Your task to perform on an android device: install app "Venmo" Image 0: 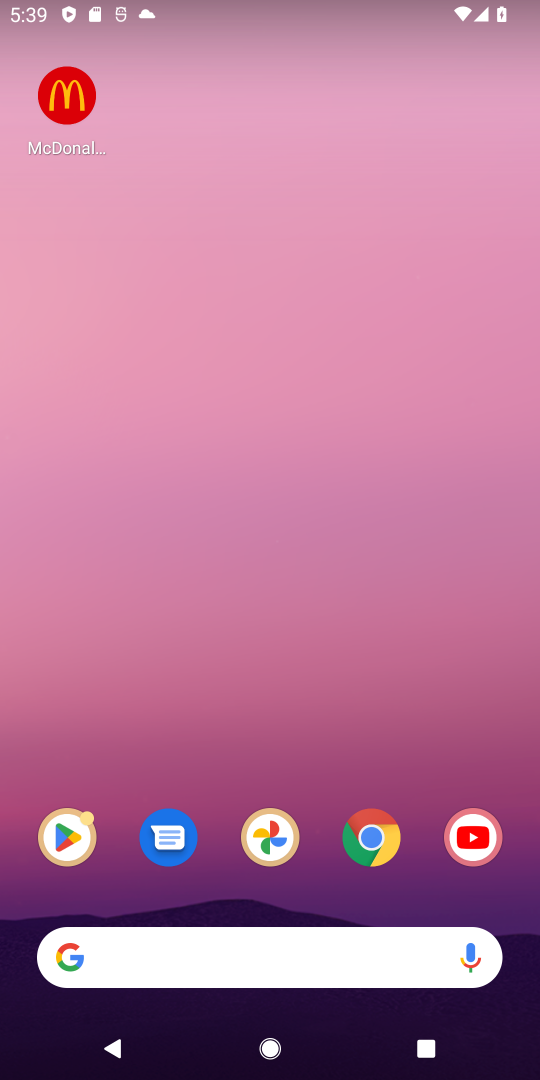
Step 0: click (61, 853)
Your task to perform on an android device: install app "Venmo" Image 1: 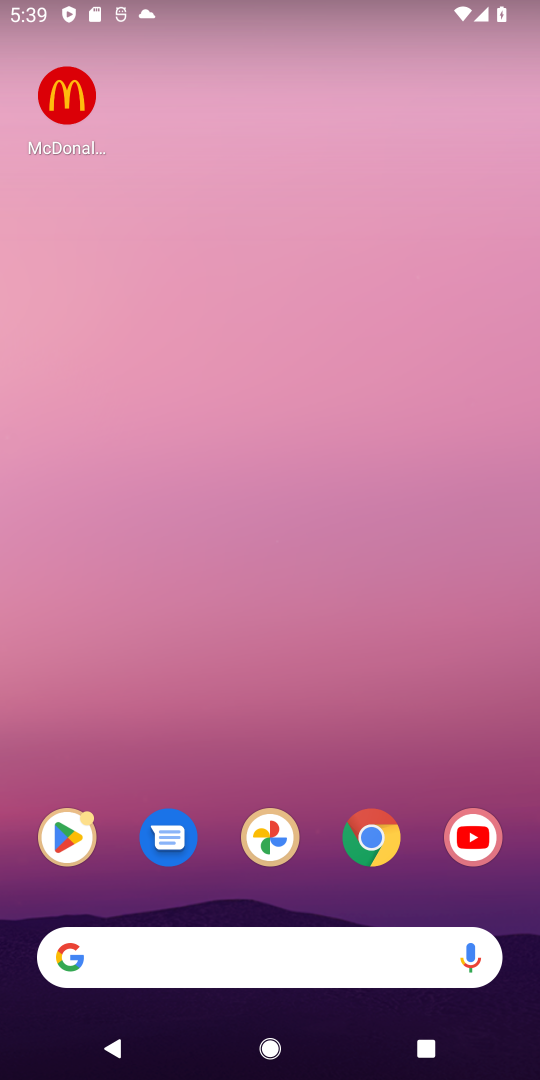
Step 1: click (61, 853)
Your task to perform on an android device: install app "Venmo" Image 2: 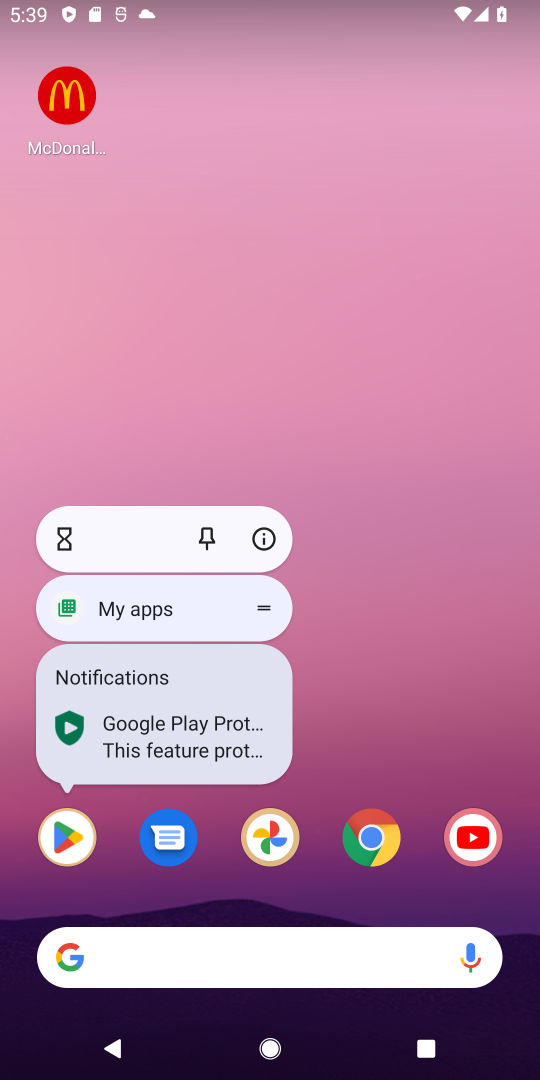
Step 2: click (61, 853)
Your task to perform on an android device: install app "Venmo" Image 3: 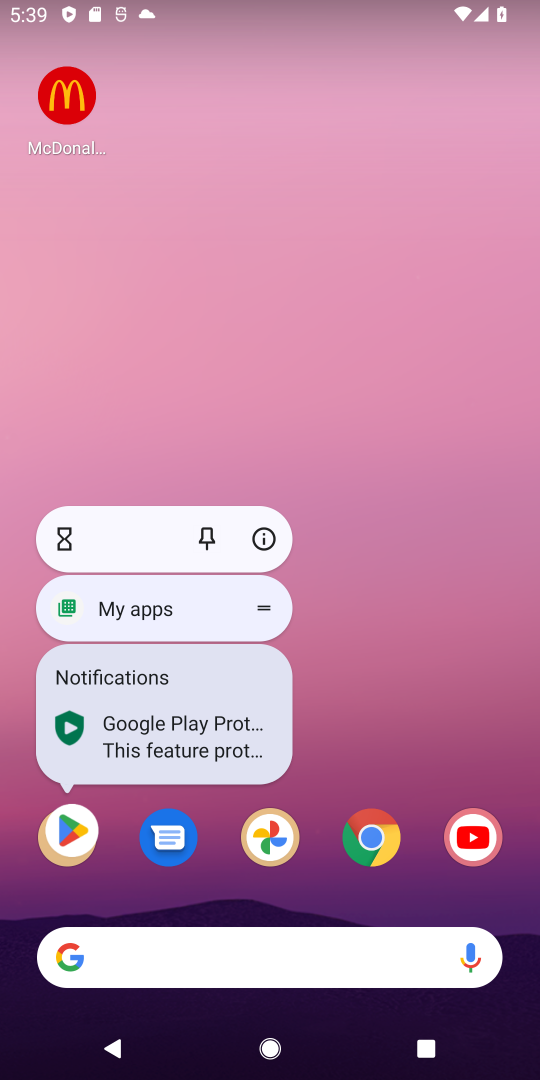
Step 3: click (61, 835)
Your task to perform on an android device: install app "Venmo" Image 4: 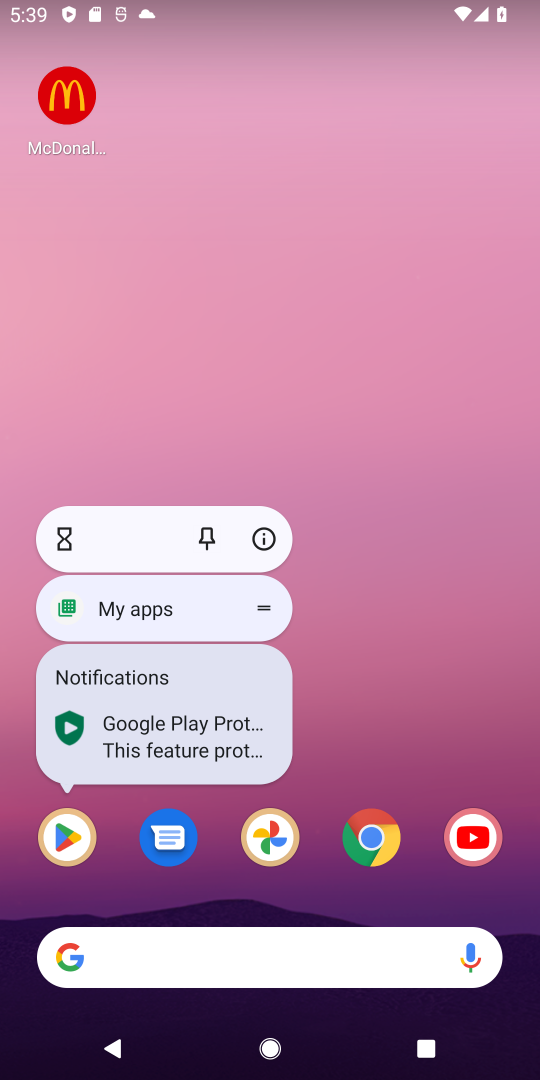
Step 4: click (61, 828)
Your task to perform on an android device: install app "Venmo" Image 5: 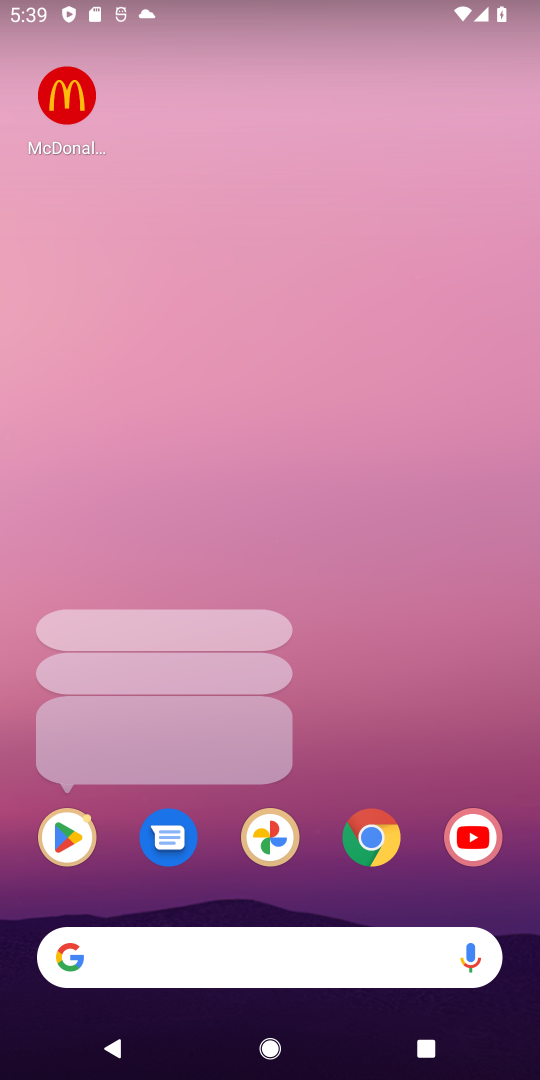
Step 5: click (61, 828)
Your task to perform on an android device: install app "Venmo" Image 6: 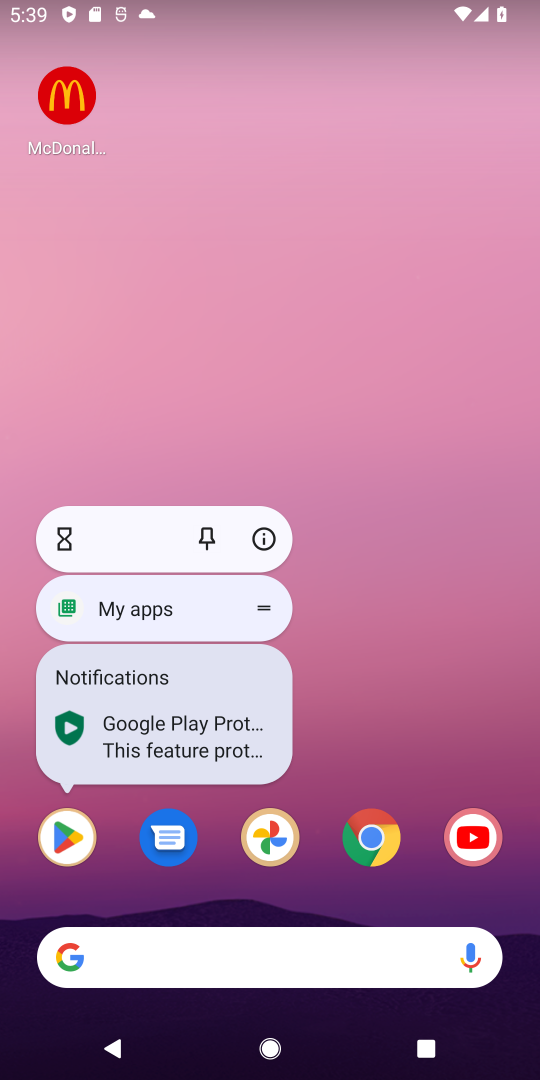
Step 6: click (61, 828)
Your task to perform on an android device: install app "Venmo" Image 7: 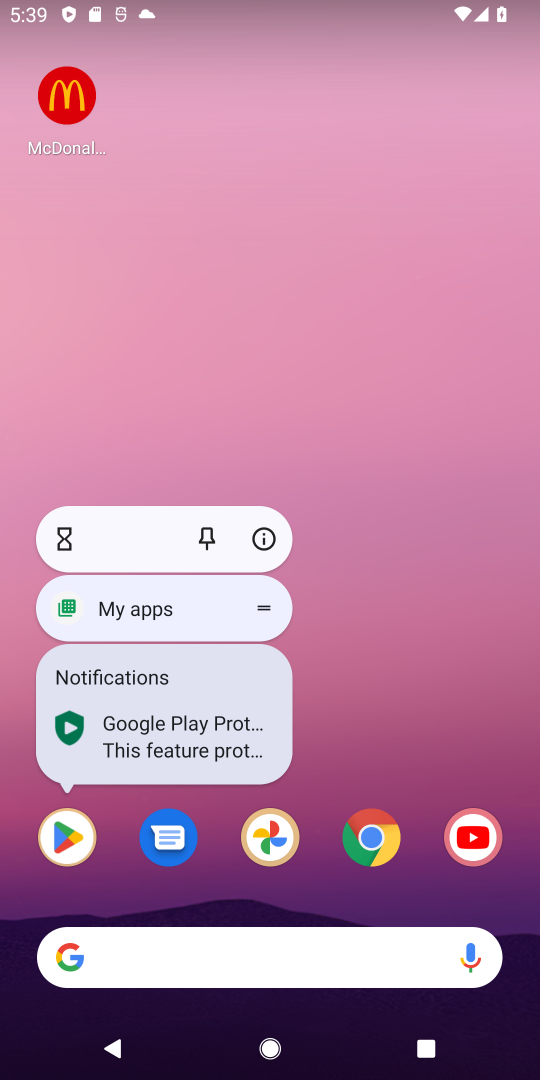
Step 7: click (61, 828)
Your task to perform on an android device: install app "Venmo" Image 8: 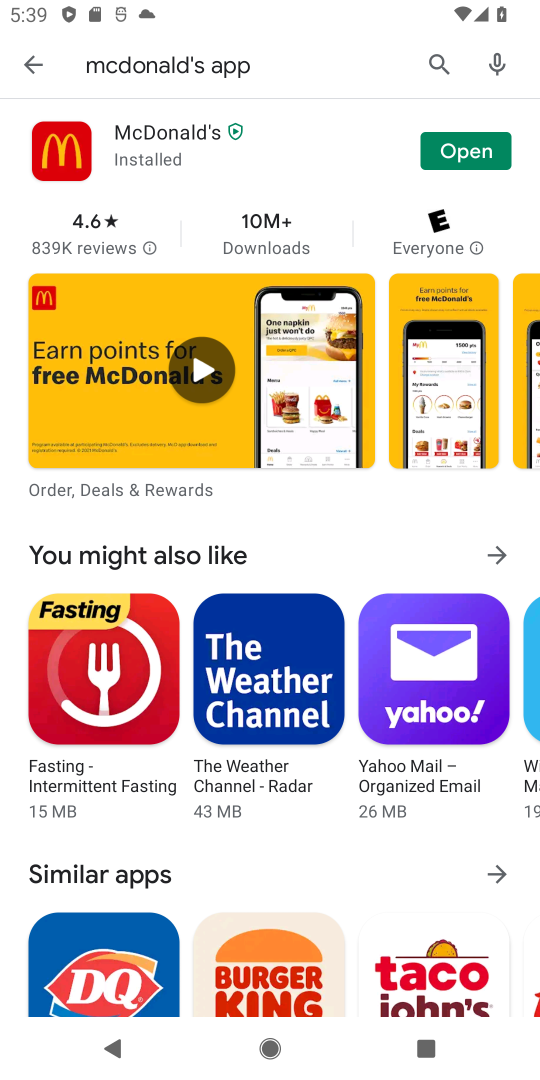
Step 8: click (435, 64)
Your task to perform on an android device: install app "Venmo" Image 9: 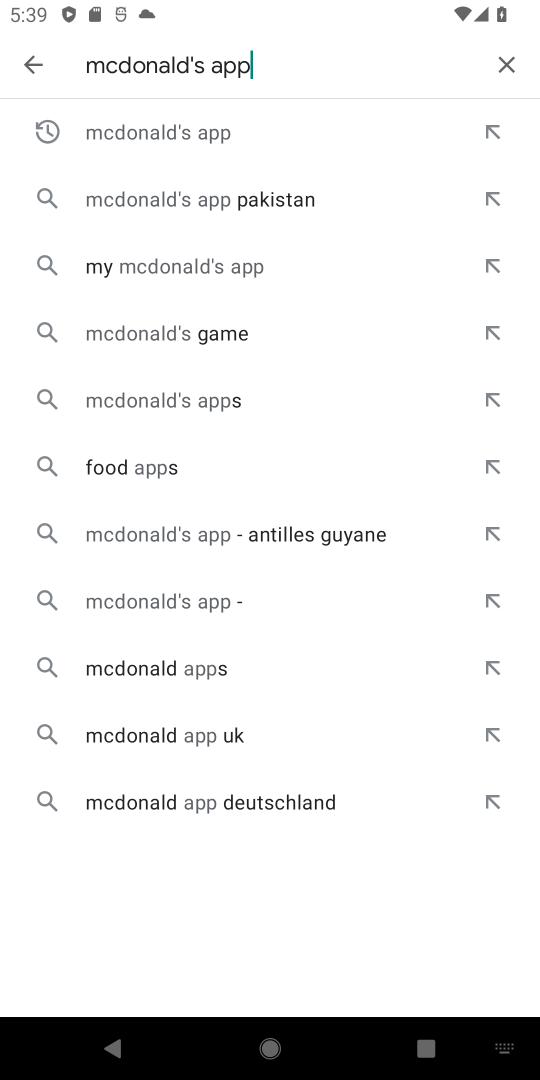
Step 9: click (506, 59)
Your task to perform on an android device: install app "Venmo" Image 10: 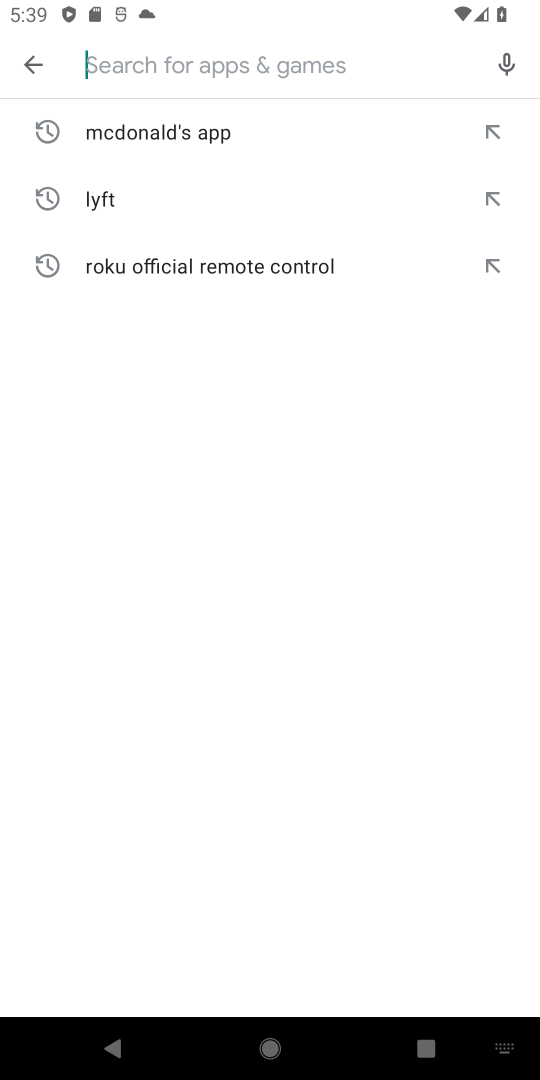
Step 10: type "McDonald's""
Your task to perform on an android device: install app "Venmo" Image 11: 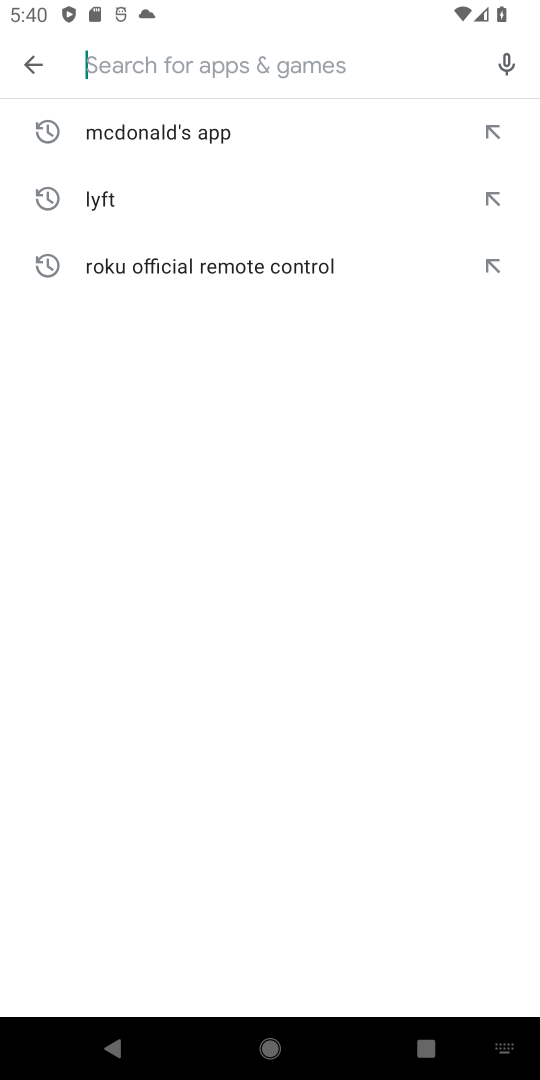
Step 11: type "Venmo"
Your task to perform on an android device: install app "Venmo" Image 12: 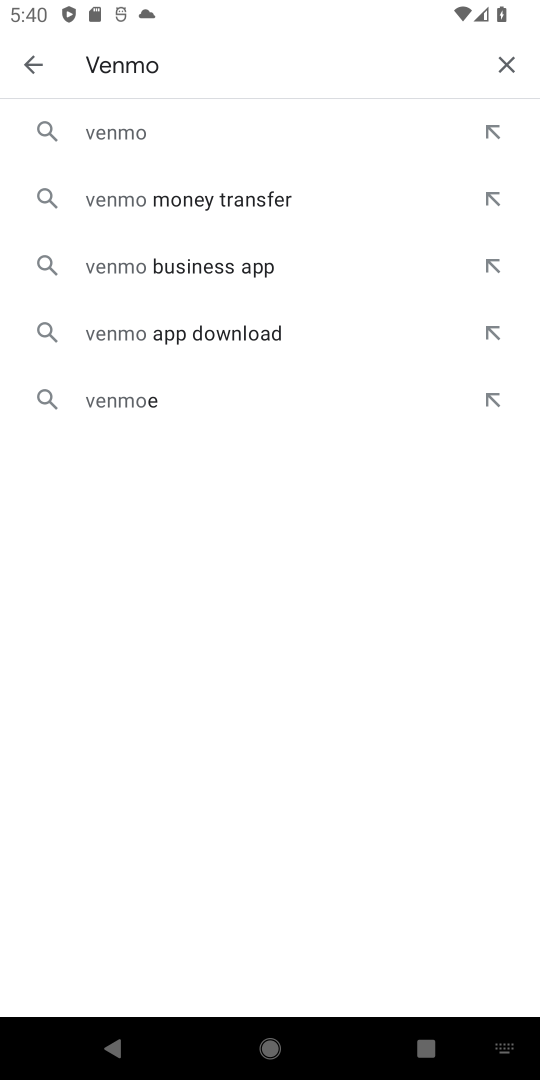
Step 12: click (281, 128)
Your task to perform on an android device: install app "Venmo" Image 13: 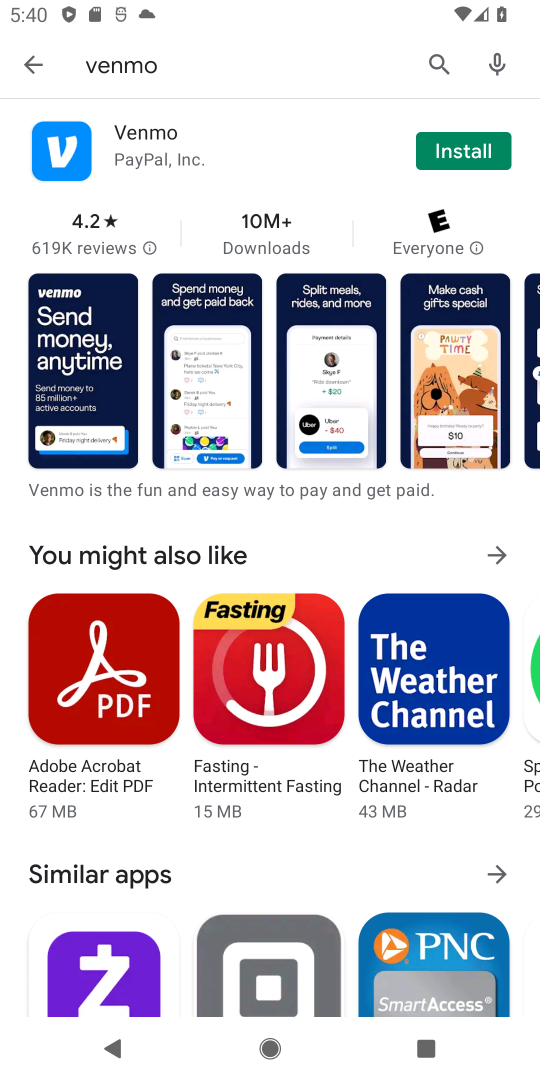
Step 13: click (479, 158)
Your task to perform on an android device: install app "Venmo" Image 14: 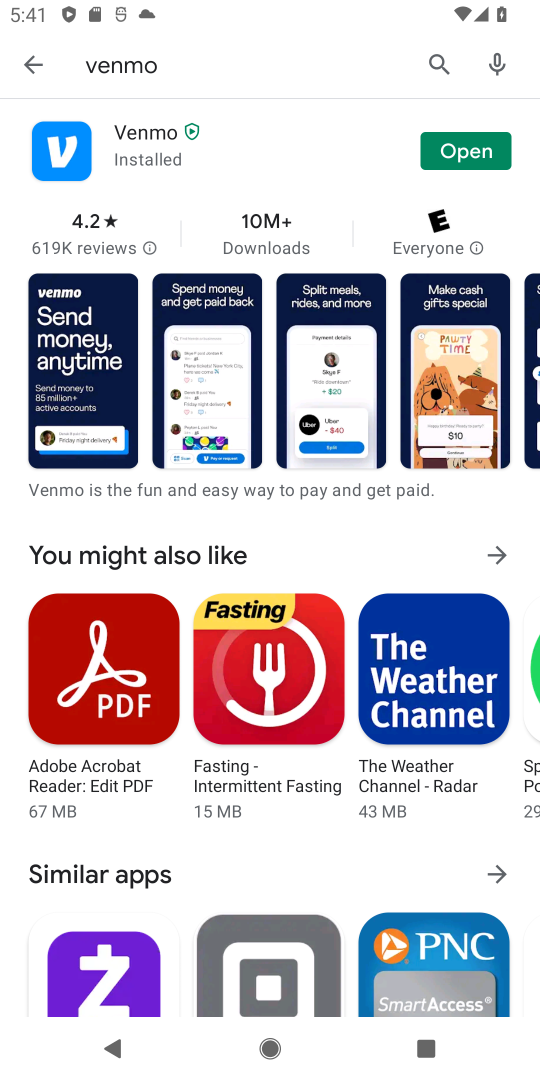
Step 14: task complete